Your task to perform on an android device: Open Youtube and go to "Your channel" Image 0: 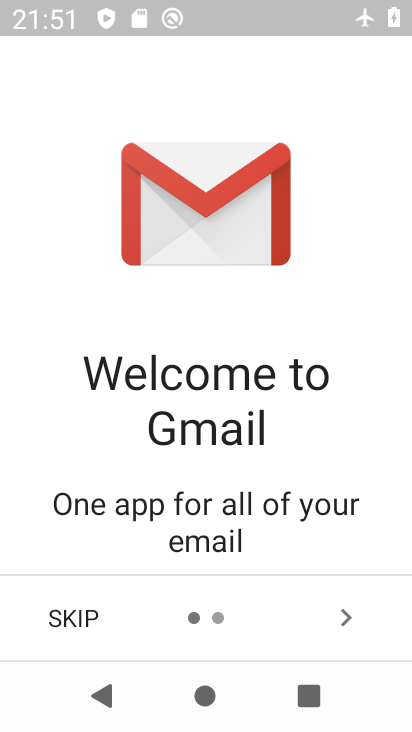
Step 0: press home button
Your task to perform on an android device: Open Youtube and go to "Your channel" Image 1: 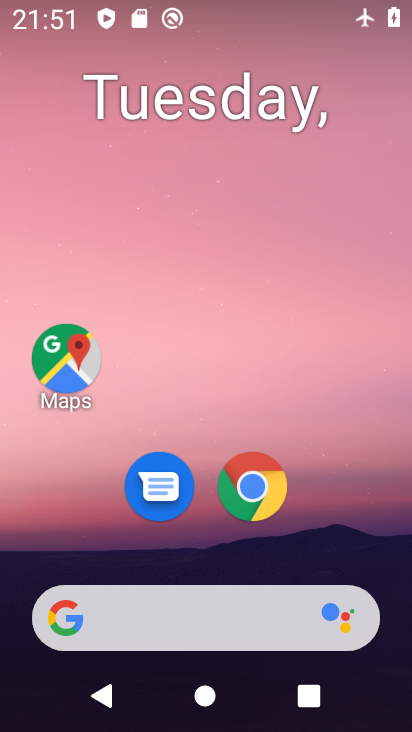
Step 1: drag from (326, 535) to (344, 139)
Your task to perform on an android device: Open Youtube and go to "Your channel" Image 2: 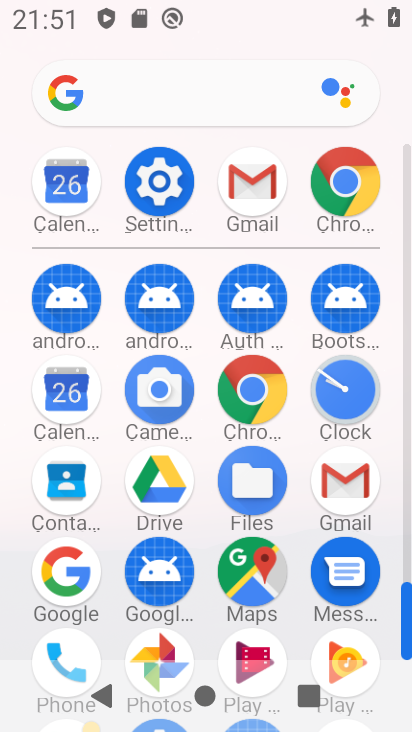
Step 2: drag from (389, 484) to (389, 258)
Your task to perform on an android device: Open Youtube and go to "Your channel" Image 3: 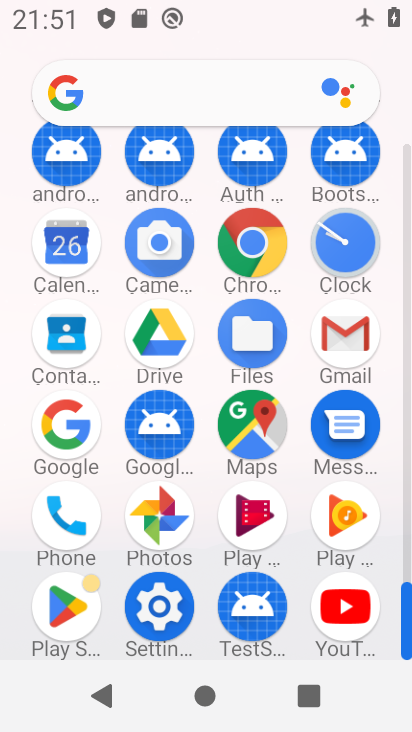
Step 3: click (337, 612)
Your task to perform on an android device: Open Youtube and go to "Your channel" Image 4: 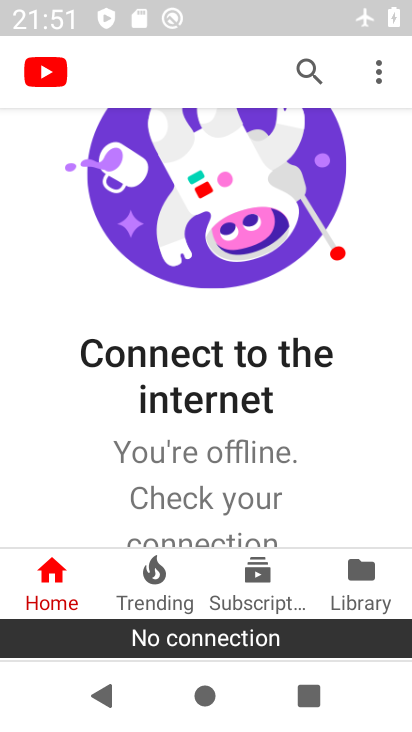
Step 4: click (380, 76)
Your task to perform on an android device: Open Youtube and go to "Your channel" Image 5: 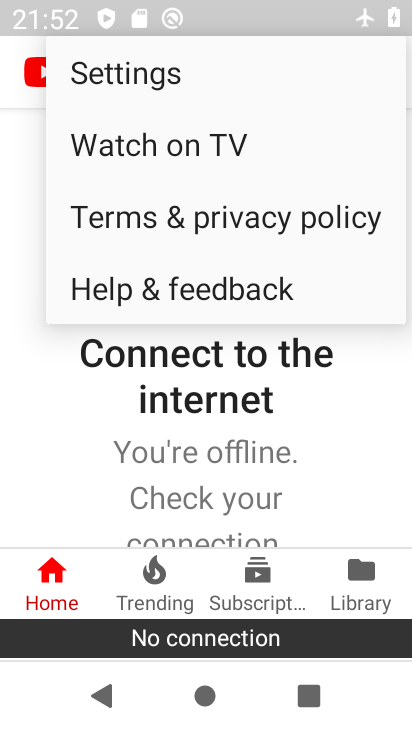
Step 5: task complete